Your task to perform on an android device: refresh tabs in the chrome app Image 0: 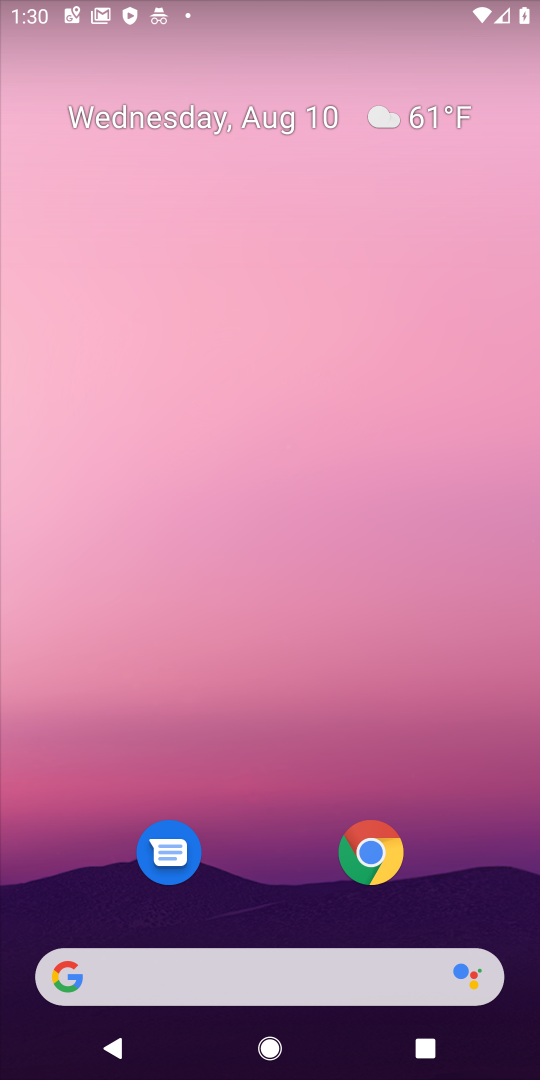
Step 0: press home button
Your task to perform on an android device: refresh tabs in the chrome app Image 1: 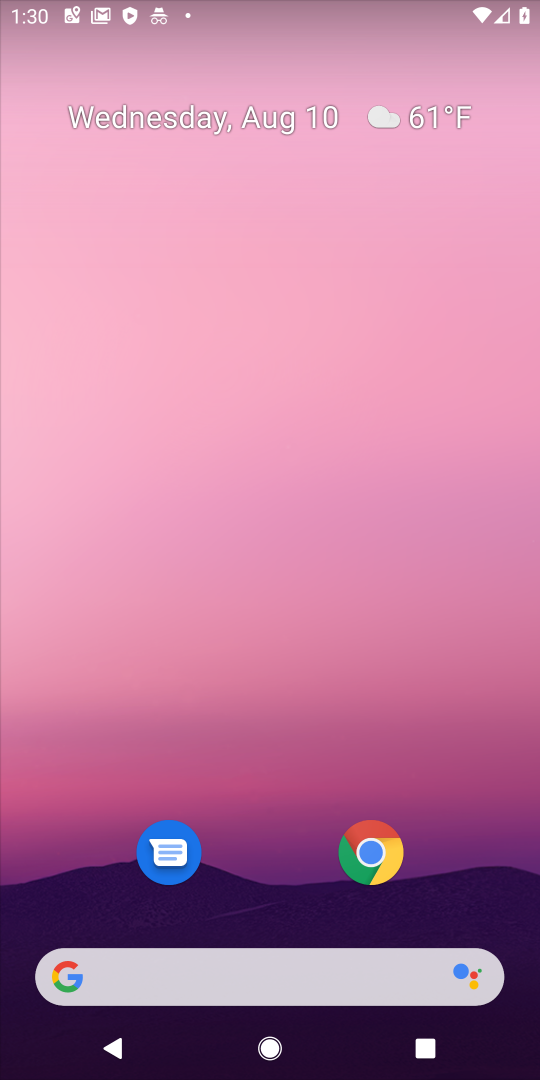
Step 1: click (481, 579)
Your task to perform on an android device: refresh tabs in the chrome app Image 2: 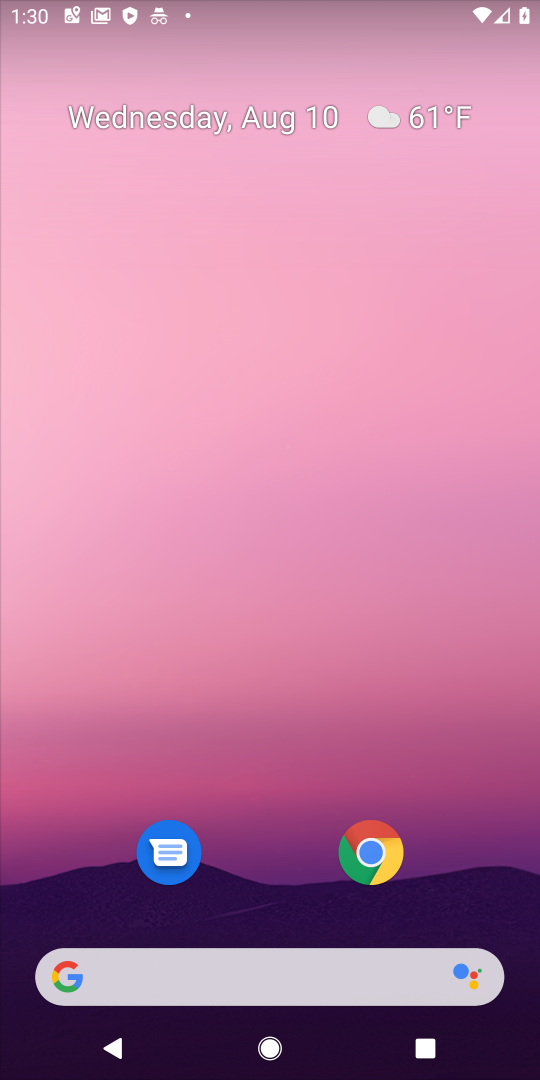
Step 2: drag from (263, 794) to (284, 144)
Your task to perform on an android device: refresh tabs in the chrome app Image 3: 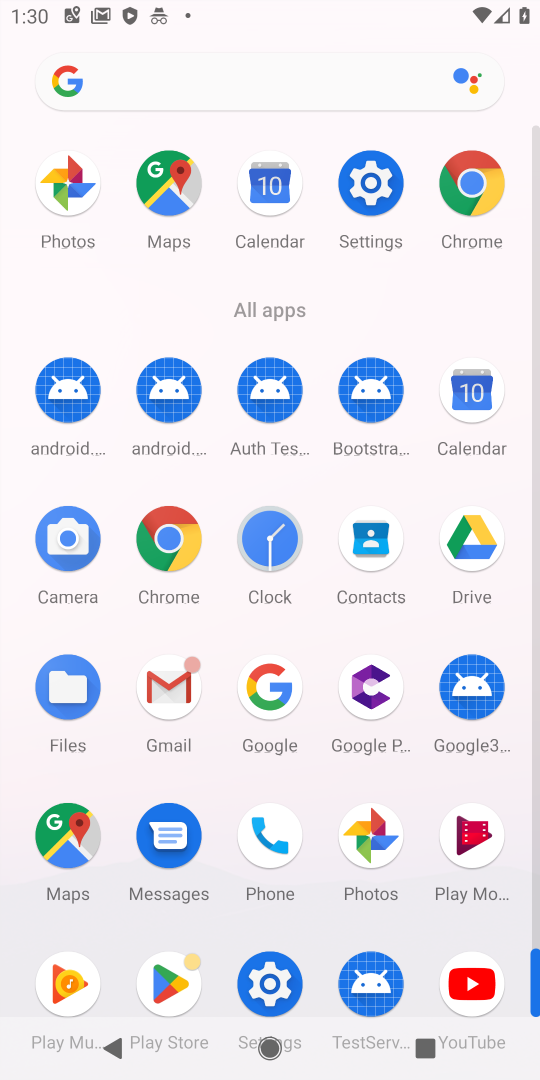
Step 3: click (171, 524)
Your task to perform on an android device: refresh tabs in the chrome app Image 4: 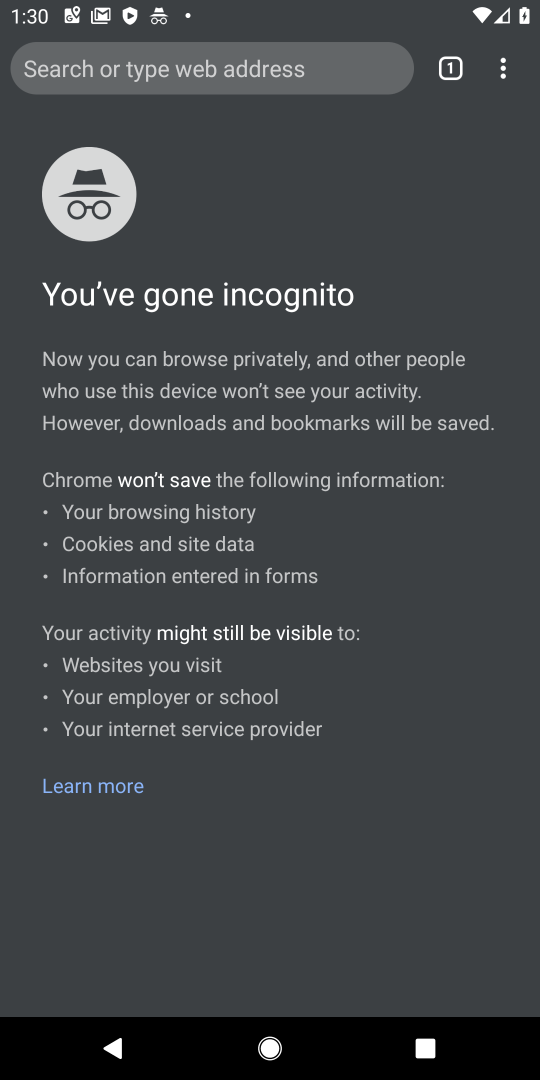
Step 4: click (511, 64)
Your task to perform on an android device: refresh tabs in the chrome app Image 5: 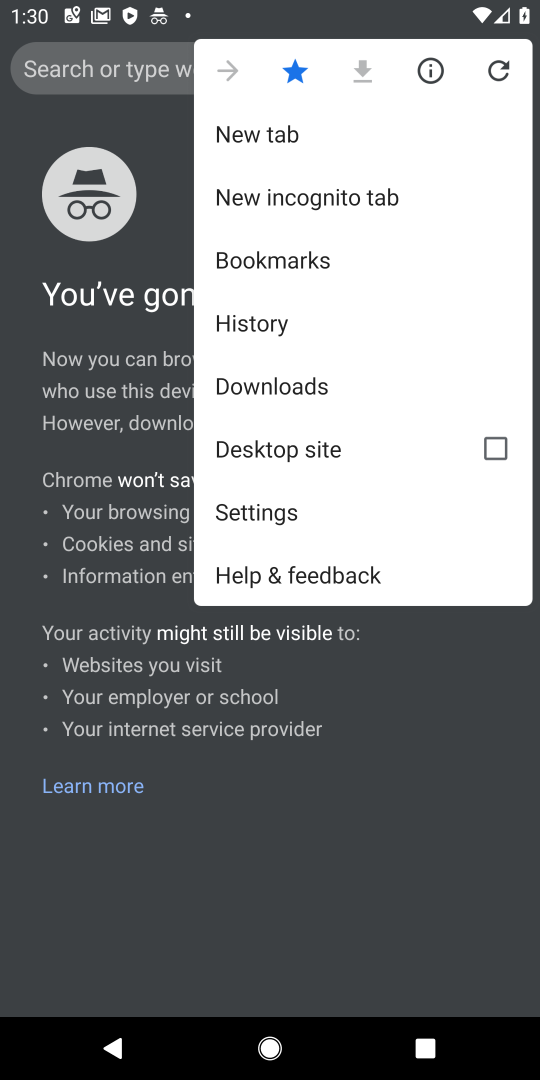
Step 5: click (492, 70)
Your task to perform on an android device: refresh tabs in the chrome app Image 6: 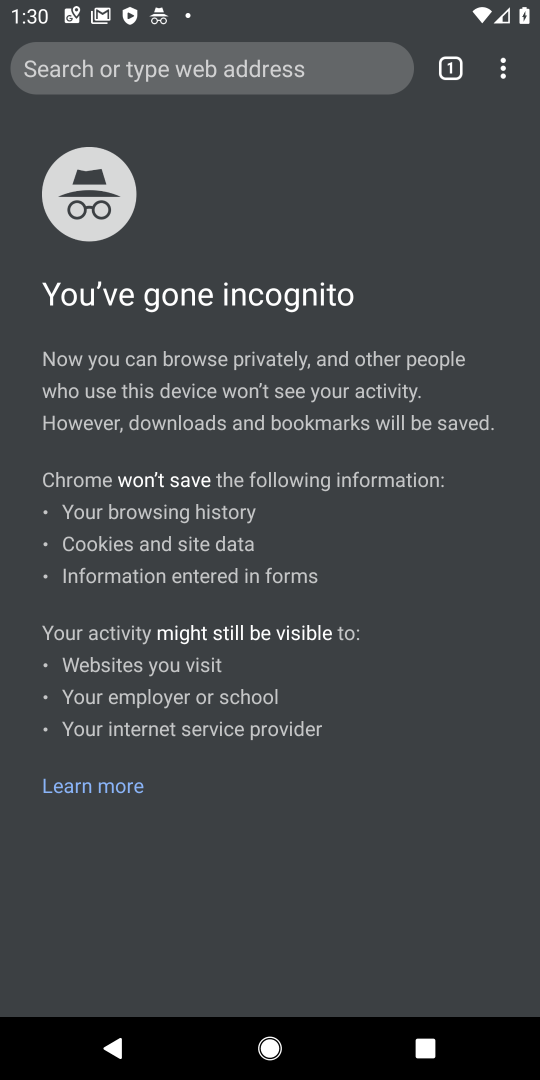
Step 6: task complete